Your task to perform on an android device: Open the map Image 0: 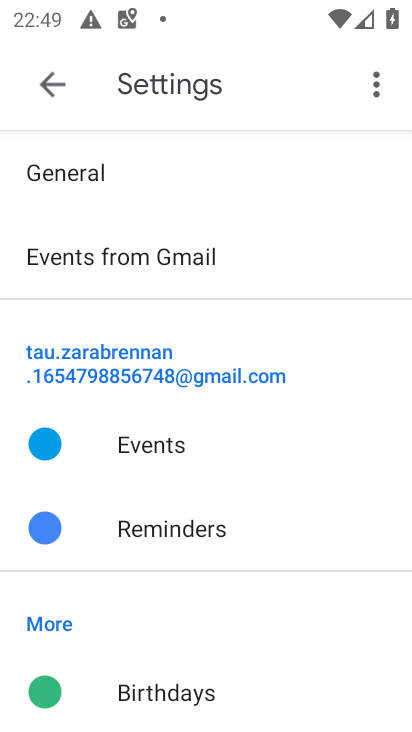
Step 0: press back button
Your task to perform on an android device: Open the map Image 1: 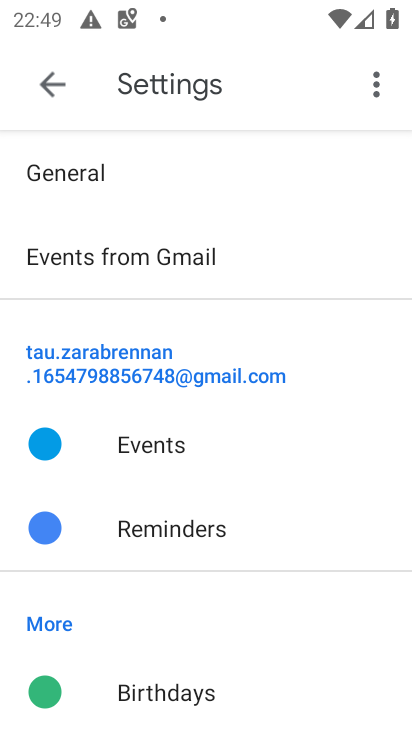
Step 1: press home button
Your task to perform on an android device: Open the map Image 2: 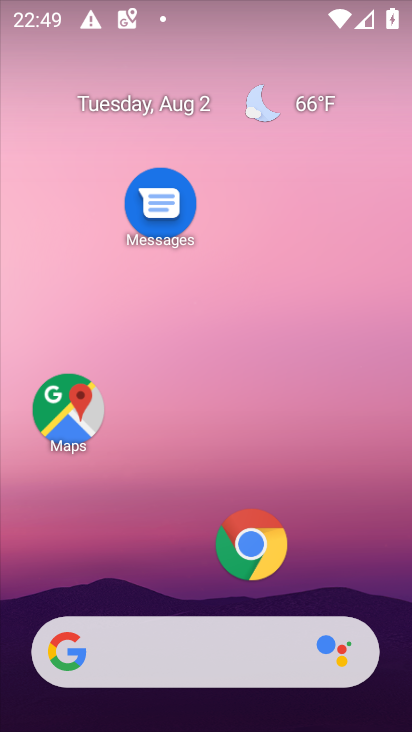
Step 2: click (30, 416)
Your task to perform on an android device: Open the map Image 3: 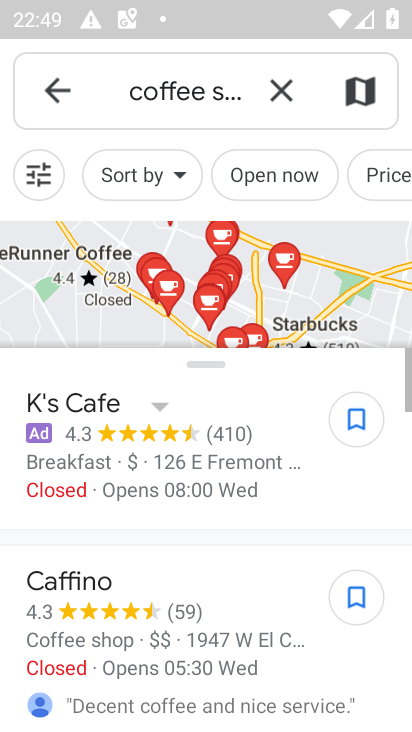
Step 3: task complete